Your task to perform on an android device: Open Google Image 0: 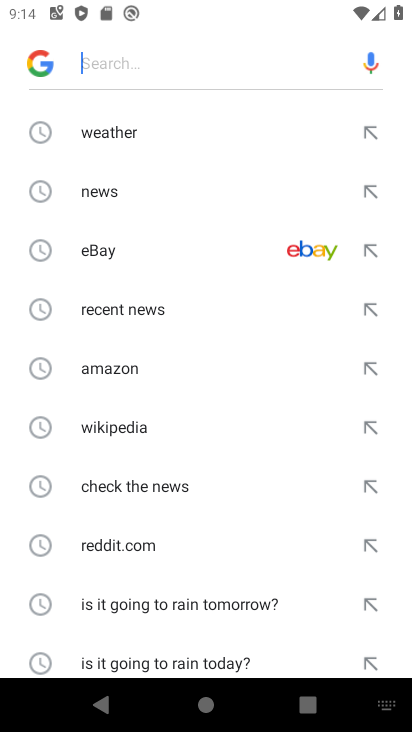
Step 0: press home button
Your task to perform on an android device: Open Google Image 1: 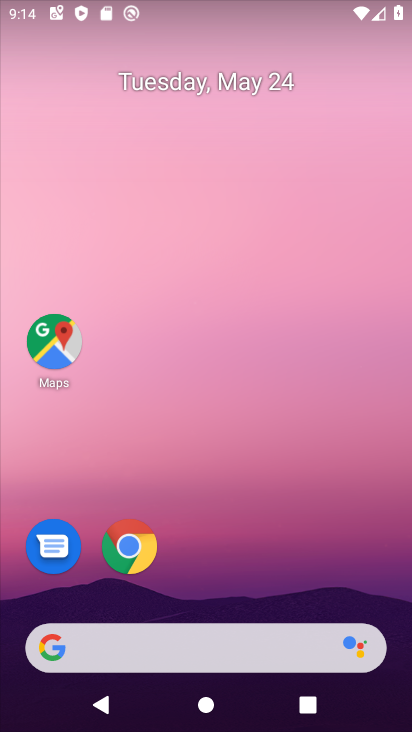
Step 1: drag from (352, 574) to (326, 154)
Your task to perform on an android device: Open Google Image 2: 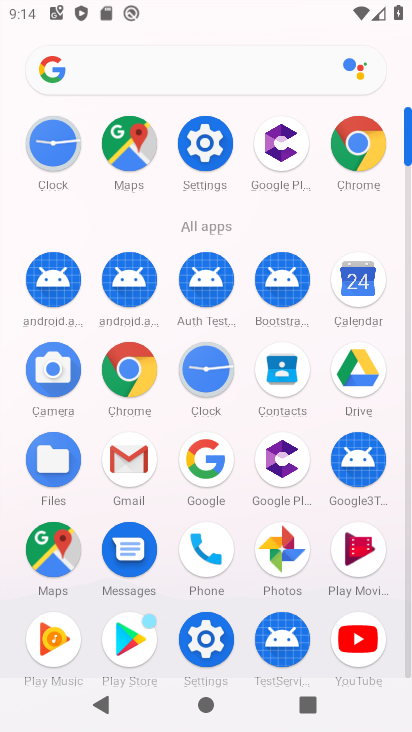
Step 2: click (191, 482)
Your task to perform on an android device: Open Google Image 3: 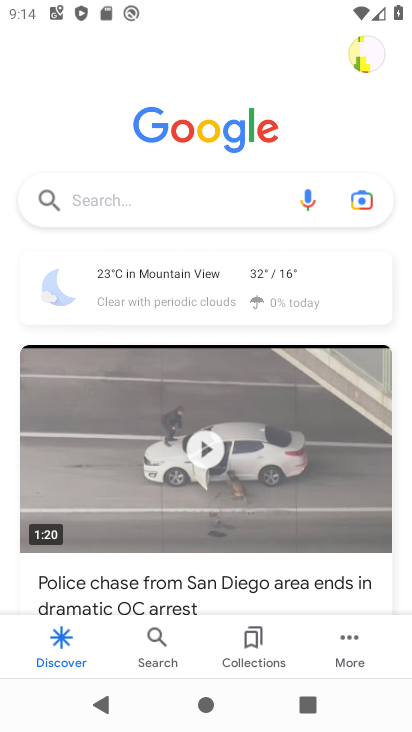
Step 3: task complete